Your task to perform on an android device: open chrome and create a bookmark for the current page Image 0: 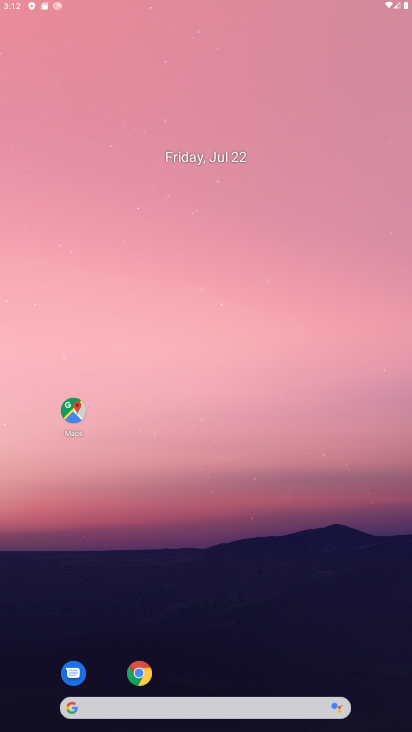
Step 0: drag from (308, 12) to (24, 282)
Your task to perform on an android device: open chrome and create a bookmark for the current page Image 1: 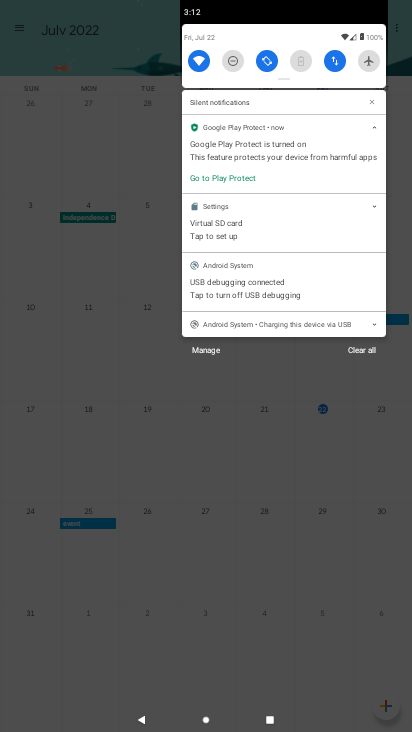
Step 1: drag from (293, 199) to (361, 572)
Your task to perform on an android device: open chrome and create a bookmark for the current page Image 2: 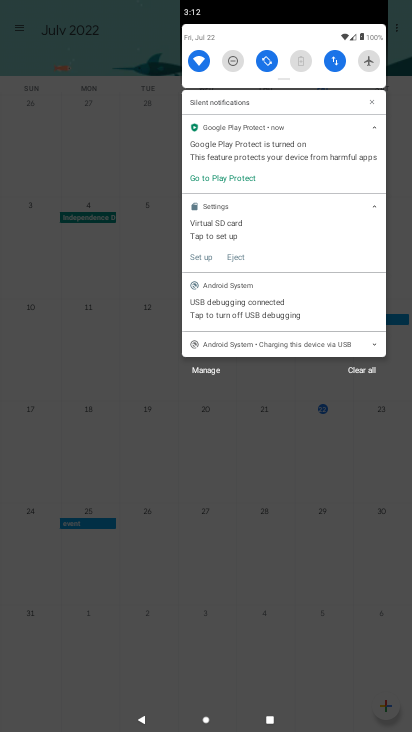
Step 2: drag from (307, 226) to (369, 1)
Your task to perform on an android device: open chrome and create a bookmark for the current page Image 3: 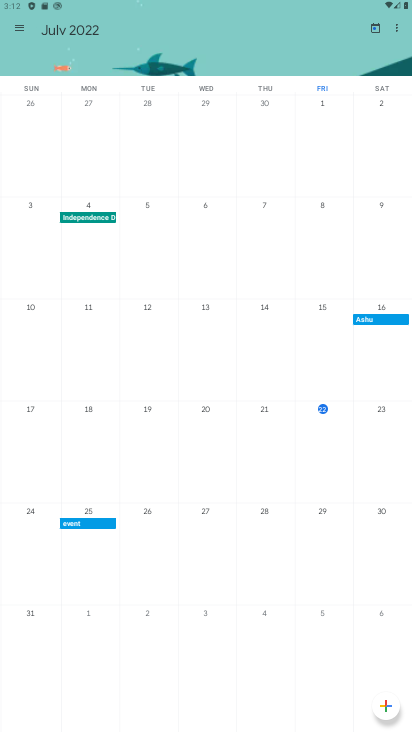
Step 3: press home button
Your task to perform on an android device: open chrome and create a bookmark for the current page Image 4: 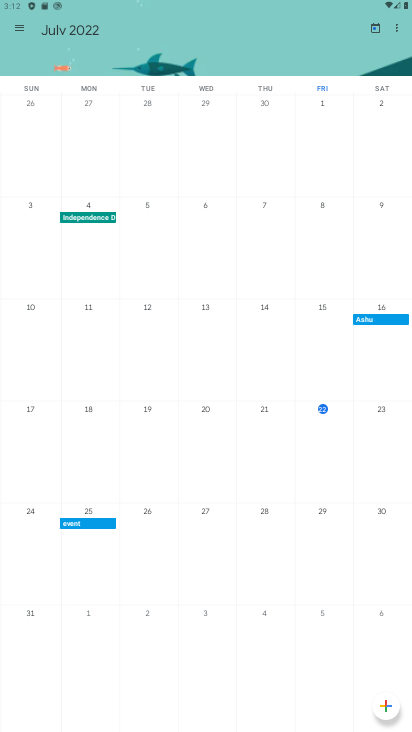
Step 4: press home button
Your task to perform on an android device: open chrome and create a bookmark for the current page Image 5: 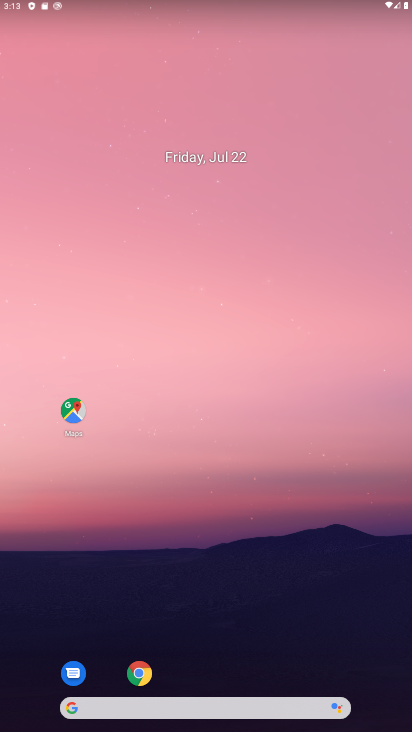
Step 5: drag from (207, 641) to (321, 206)
Your task to perform on an android device: open chrome and create a bookmark for the current page Image 6: 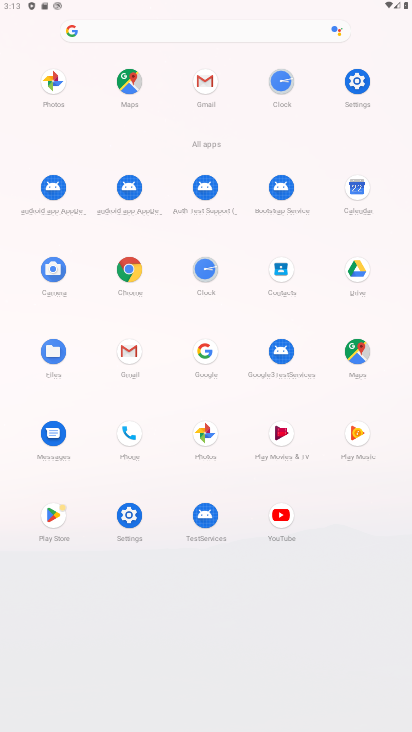
Step 6: click (125, 266)
Your task to perform on an android device: open chrome and create a bookmark for the current page Image 7: 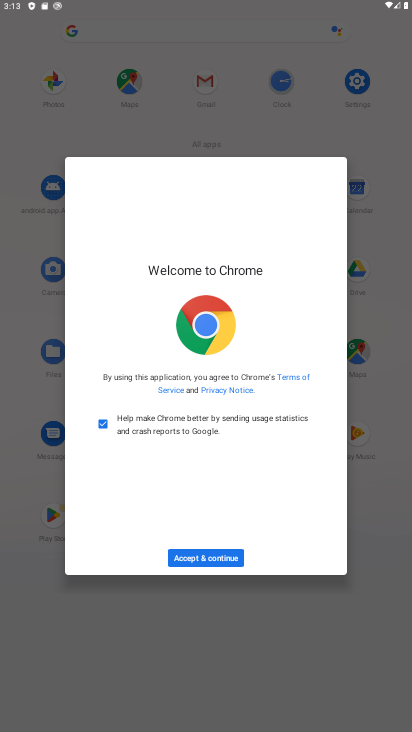
Step 7: click (200, 560)
Your task to perform on an android device: open chrome and create a bookmark for the current page Image 8: 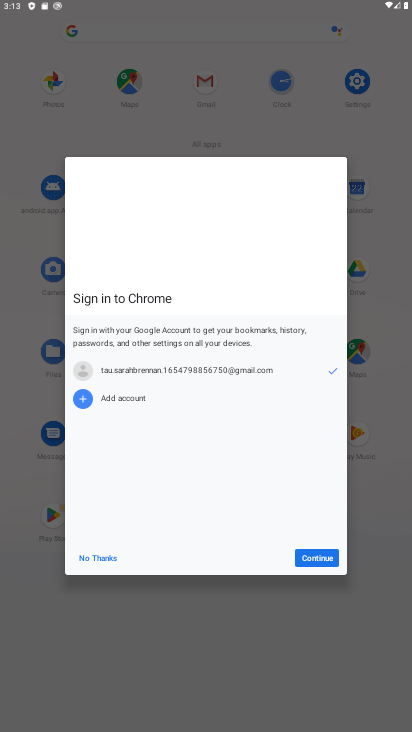
Step 8: click (305, 556)
Your task to perform on an android device: open chrome and create a bookmark for the current page Image 9: 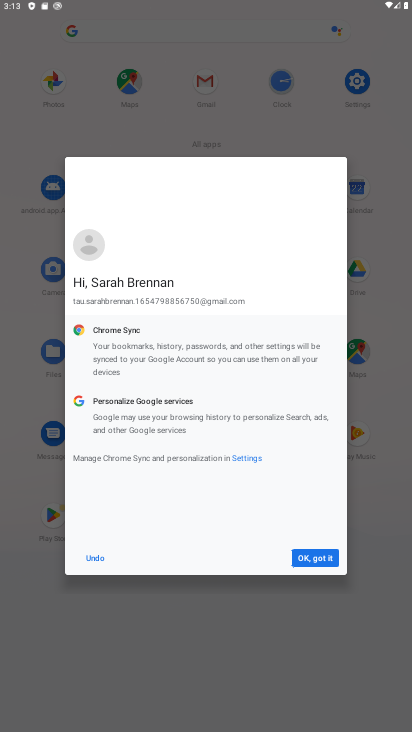
Step 9: click (320, 547)
Your task to perform on an android device: open chrome and create a bookmark for the current page Image 10: 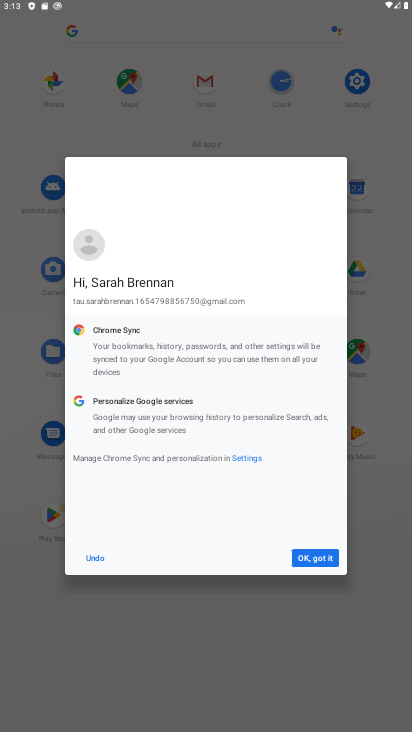
Step 10: click (319, 548)
Your task to perform on an android device: open chrome and create a bookmark for the current page Image 11: 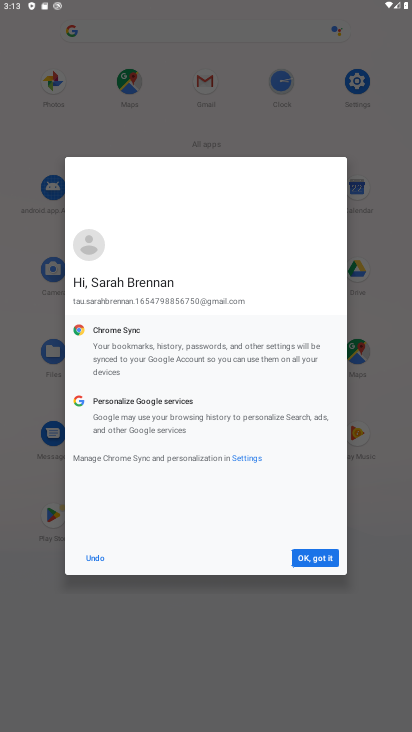
Step 11: click (300, 558)
Your task to perform on an android device: open chrome and create a bookmark for the current page Image 12: 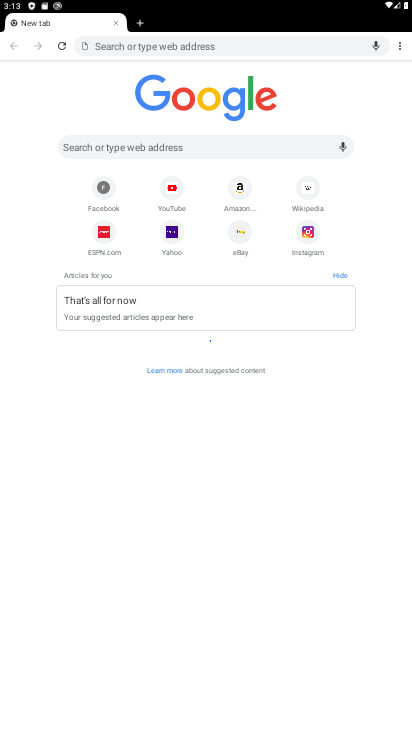
Step 12: drag from (401, 44) to (103, 87)
Your task to perform on an android device: open chrome and create a bookmark for the current page Image 13: 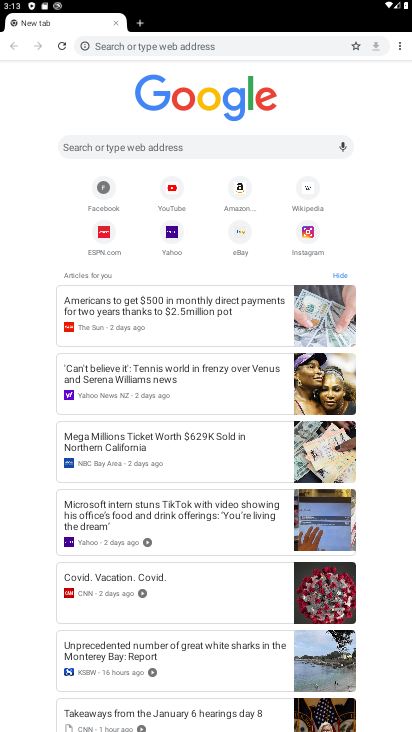
Step 13: click (347, 48)
Your task to perform on an android device: open chrome and create a bookmark for the current page Image 14: 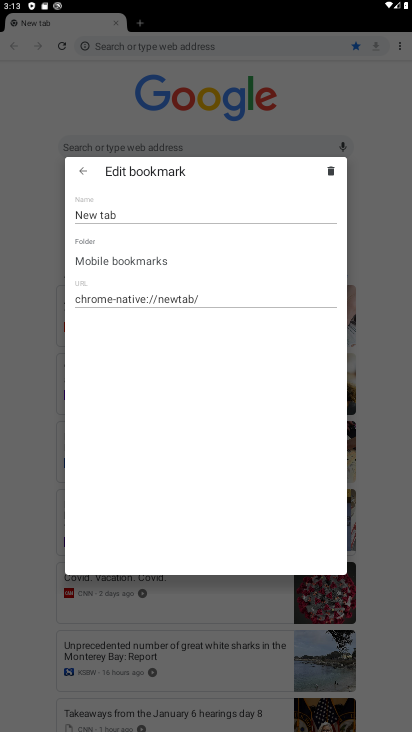
Step 14: task complete